Your task to perform on an android device: Go to Wikipedia Image 0: 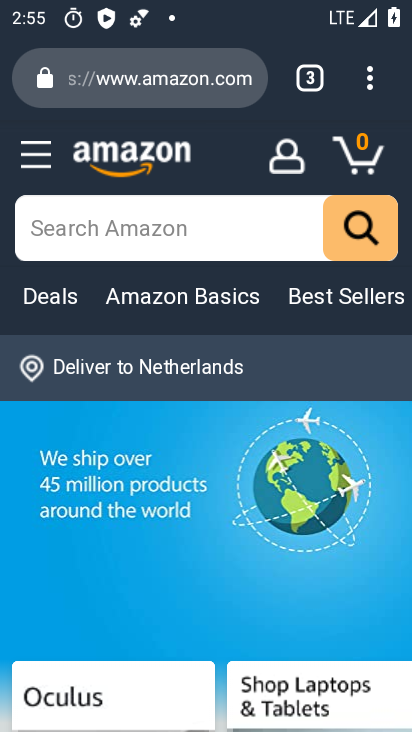
Step 0: press home button
Your task to perform on an android device: Go to Wikipedia Image 1: 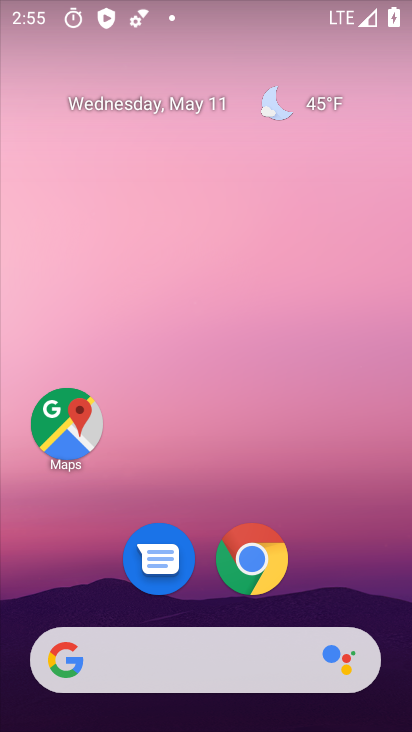
Step 1: click (267, 556)
Your task to perform on an android device: Go to Wikipedia Image 2: 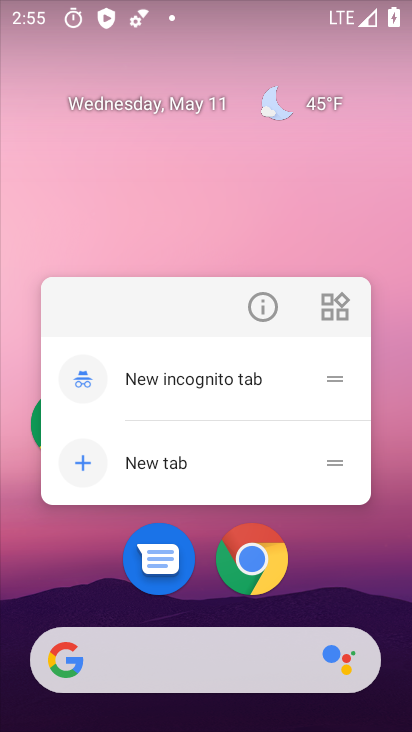
Step 2: click (256, 567)
Your task to perform on an android device: Go to Wikipedia Image 3: 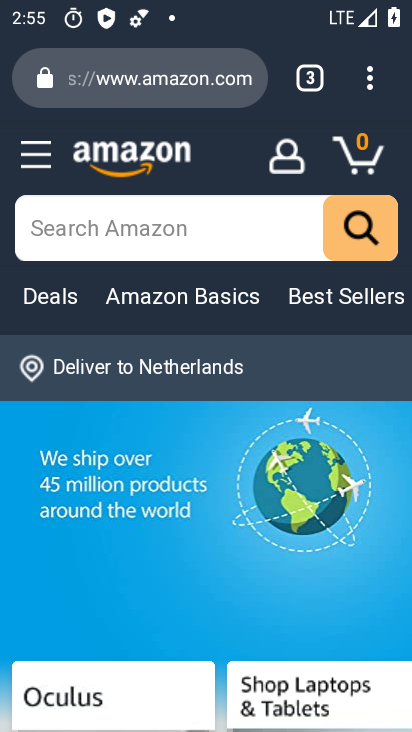
Step 3: click (294, 68)
Your task to perform on an android device: Go to Wikipedia Image 4: 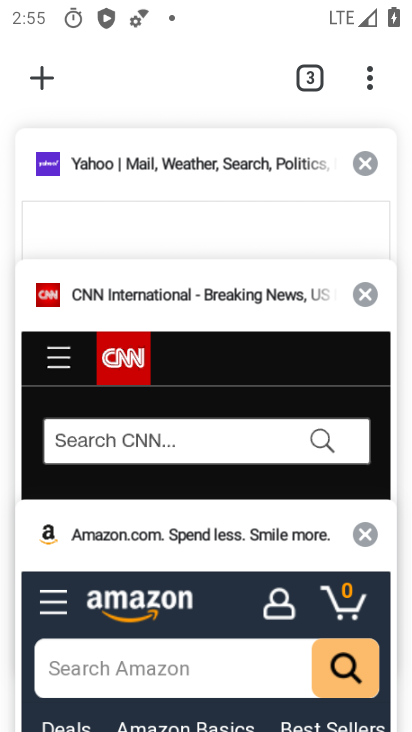
Step 4: click (39, 82)
Your task to perform on an android device: Go to Wikipedia Image 5: 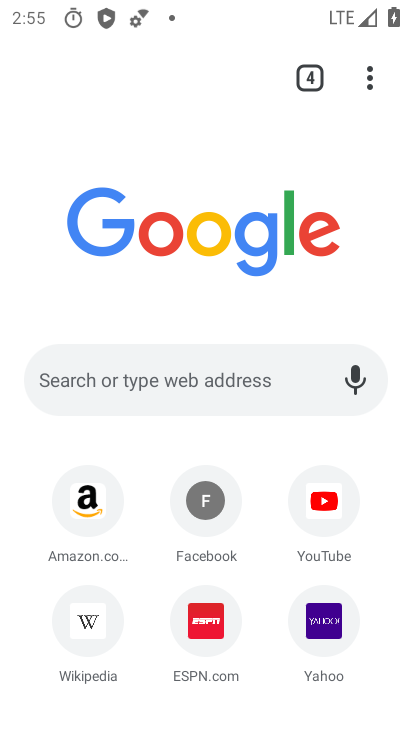
Step 5: click (96, 629)
Your task to perform on an android device: Go to Wikipedia Image 6: 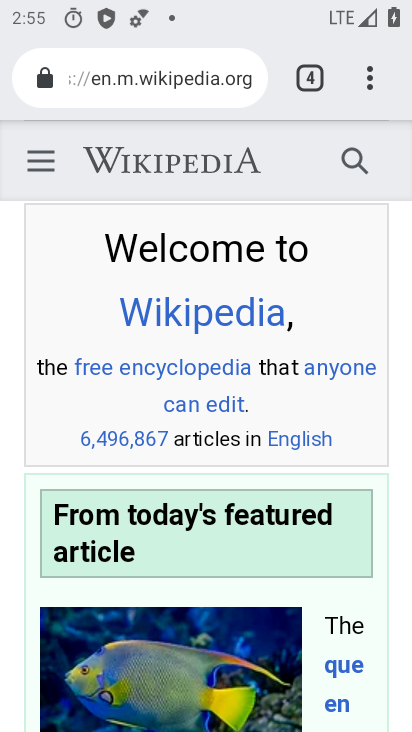
Step 6: task complete